Your task to perform on an android device: Open Maps and search for coffee Image 0: 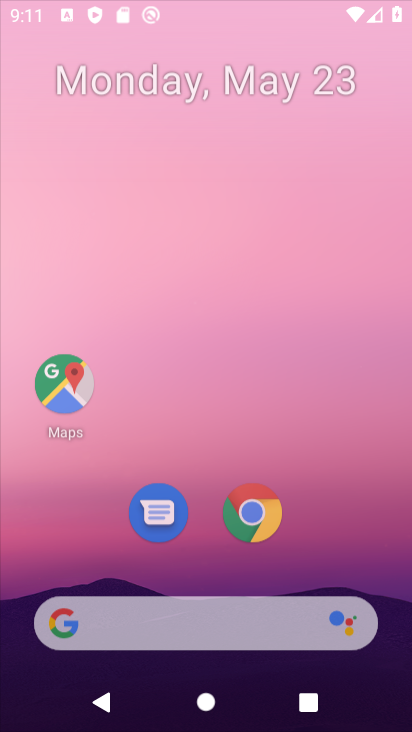
Step 0: drag from (271, 217) to (239, 21)
Your task to perform on an android device: Open Maps and search for coffee Image 1: 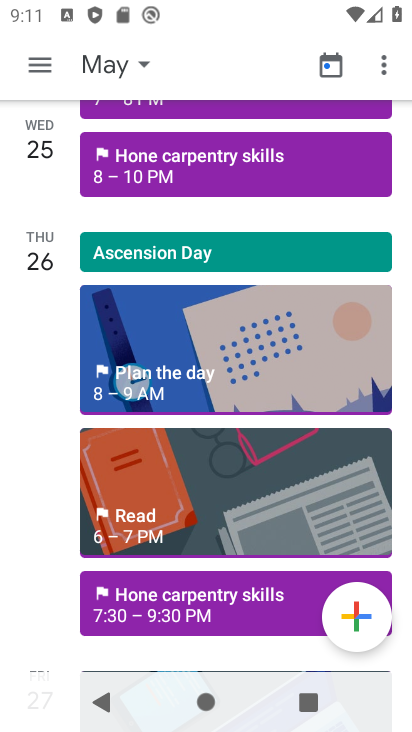
Step 1: press back button
Your task to perform on an android device: Open Maps and search for coffee Image 2: 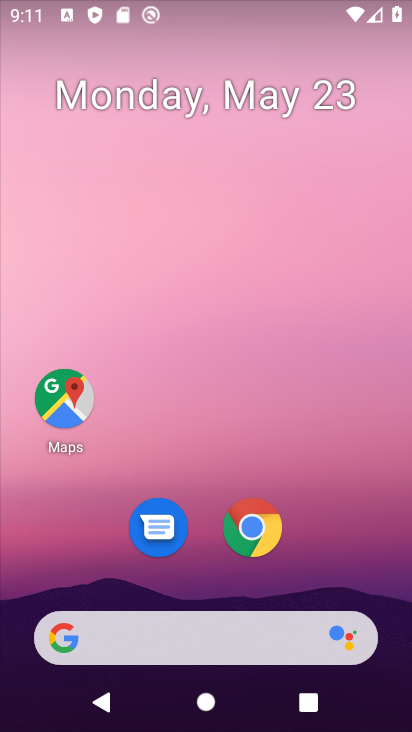
Step 2: drag from (343, 577) to (249, 1)
Your task to perform on an android device: Open Maps and search for coffee Image 3: 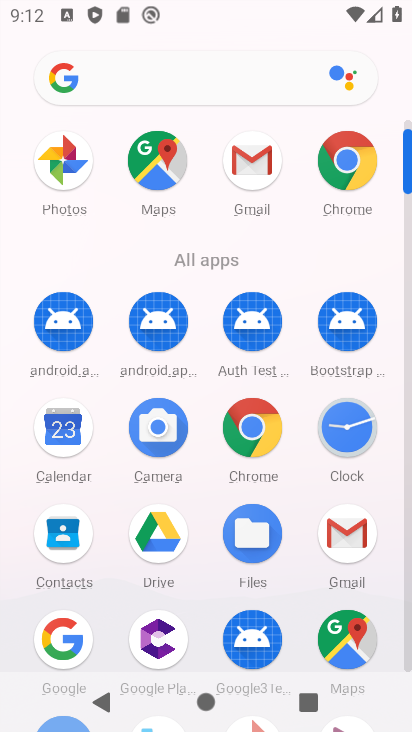
Step 3: click (342, 638)
Your task to perform on an android device: Open Maps and search for coffee Image 4: 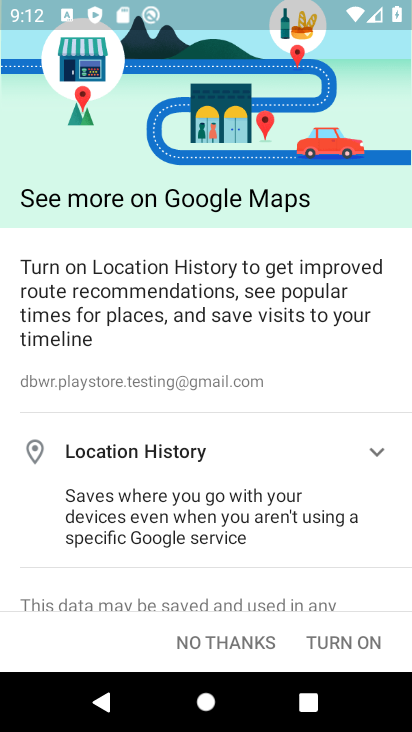
Step 4: click (335, 639)
Your task to perform on an android device: Open Maps and search for coffee Image 5: 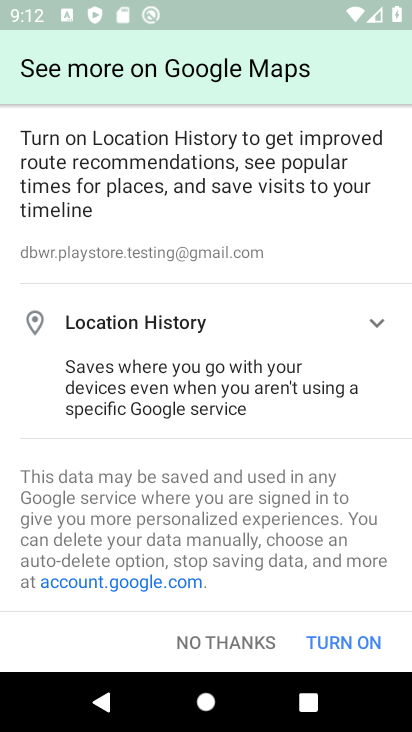
Step 5: click (335, 639)
Your task to perform on an android device: Open Maps and search for coffee Image 6: 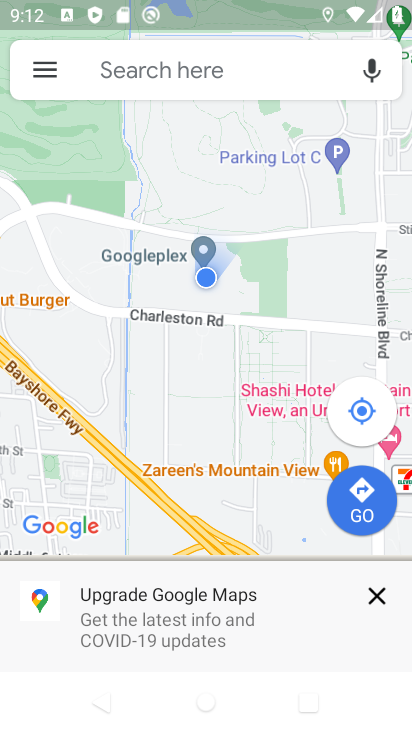
Step 6: click (249, 52)
Your task to perform on an android device: Open Maps and search for coffee Image 7: 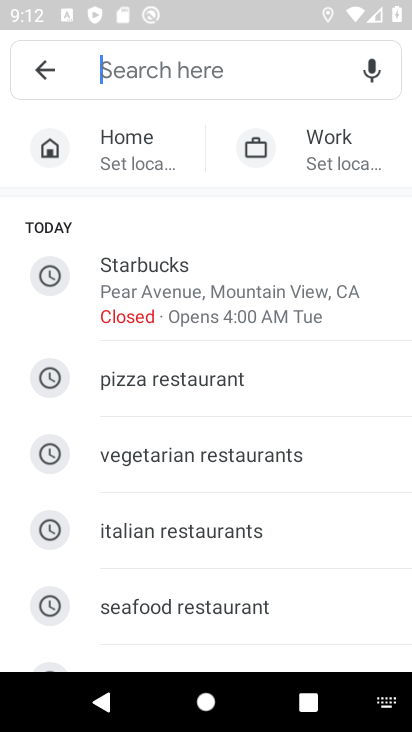
Step 7: drag from (280, 579) to (293, 278)
Your task to perform on an android device: Open Maps and search for coffee Image 8: 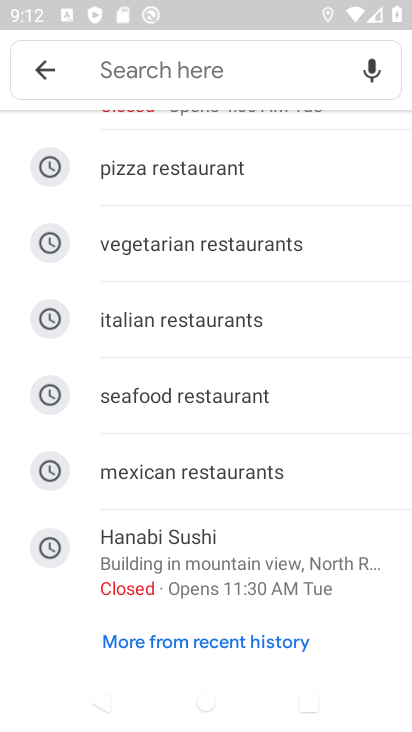
Step 8: drag from (302, 221) to (288, 605)
Your task to perform on an android device: Open Maps and search for coffee Image 9: 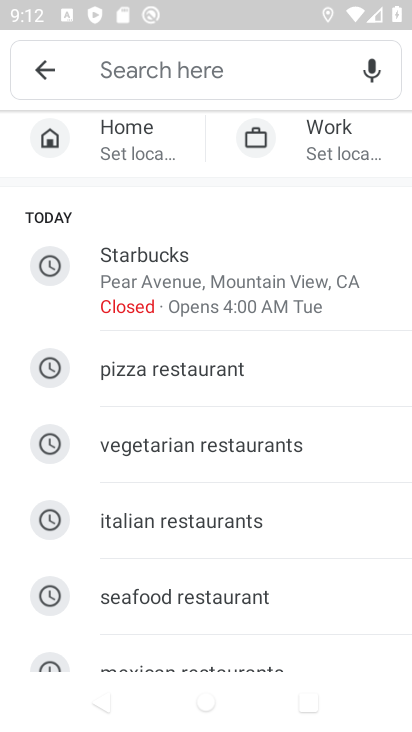
Step 9: click (174, 72)
Your task to perform on an android device: Open Maps and search for coffee Image 10: 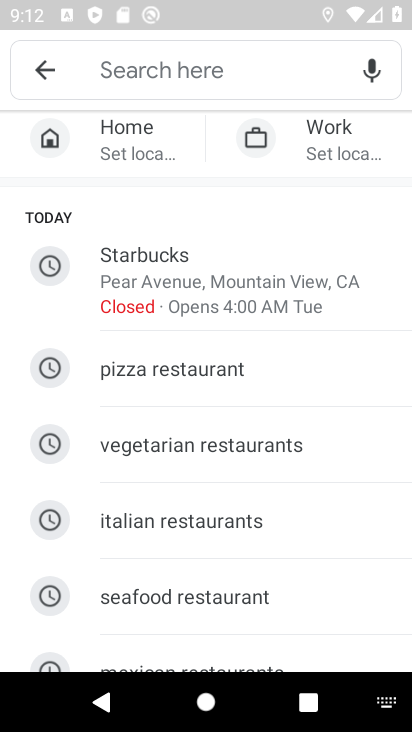
Step 10: type "coffee"
Your task to perform on an android device: Open Maps and search for coffee Image 11: 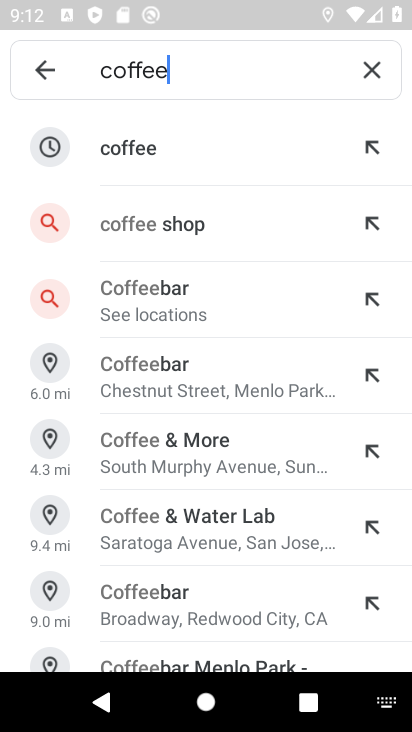
Step 11: click (157, 218)
Your task to perform on an android device: Open Maps and search for coffee Image 12: 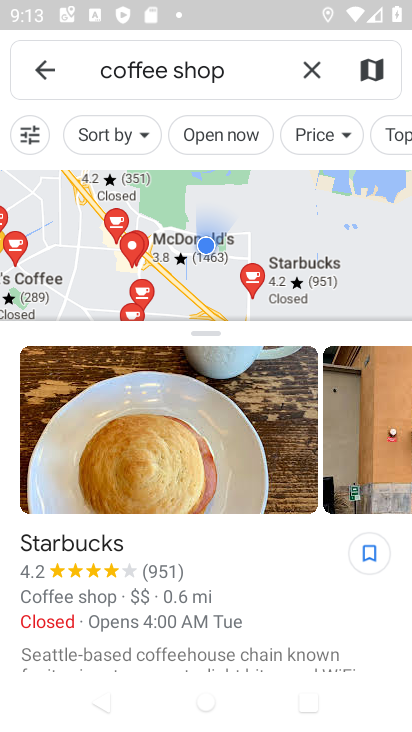
Step 12: task complete